Your task to perform on an android device: Open ESPN.com Image 0: 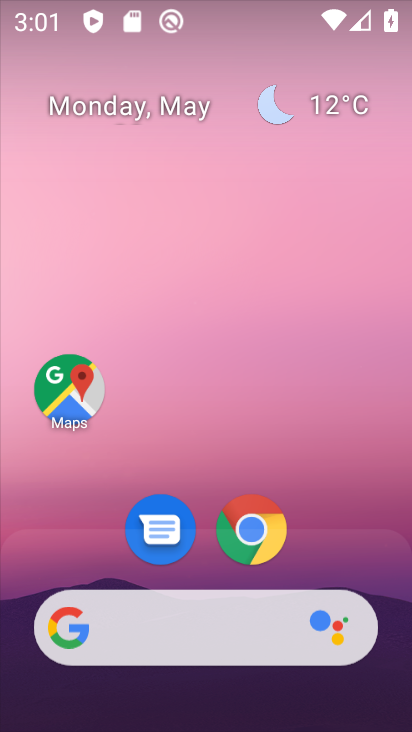
Step 0: drag from (344, 518) to (339, 6)
Your task to perform on an android device: Open ESPN.com Image 1: 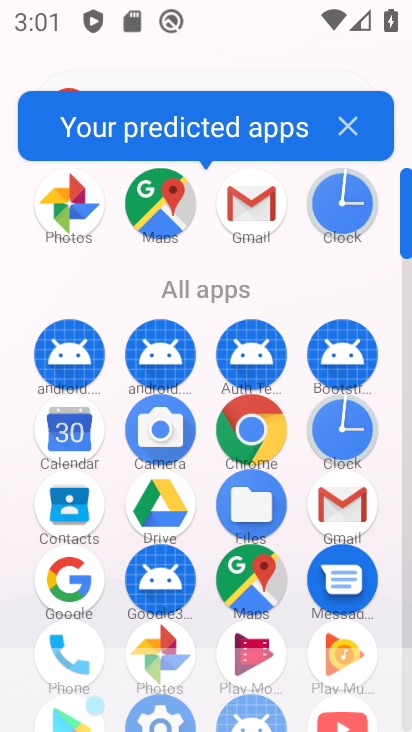
Step 1: click (245, 439)
Your task to perform on an android device: Open ESPN.com Image 2: 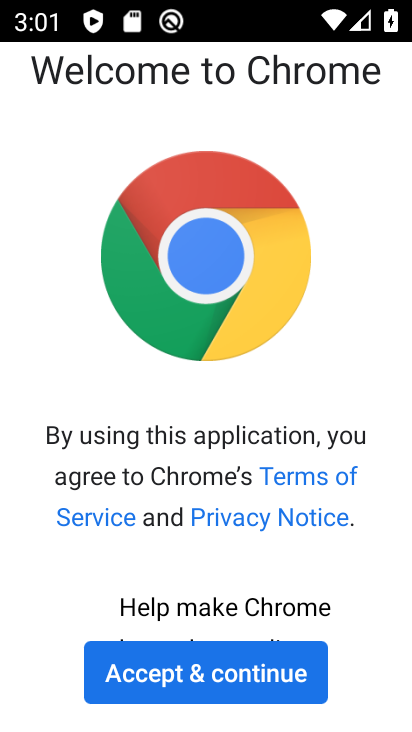
Step 2: click (236, 670)
Your task to perform on an android device: Open ESPN.com Image 3: 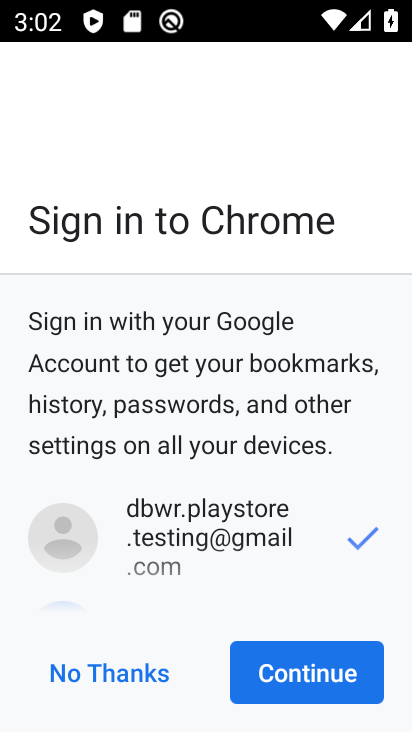
Step 3: click (335, 678)
Your task to perform on an android device: Open ESPN.com Image 4: 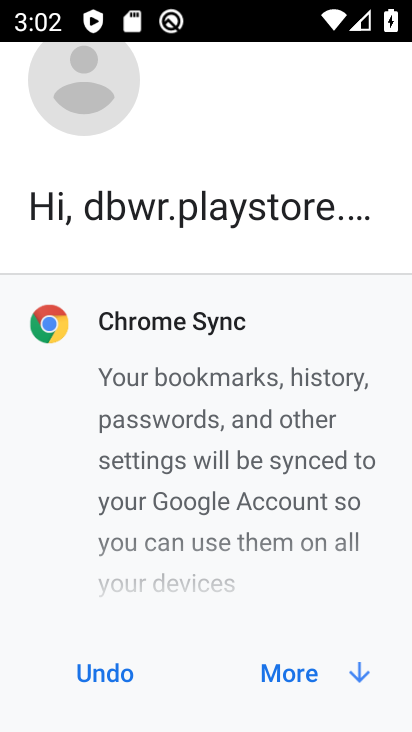
Step 4: click (316, 664)
Your task to perform on an android device: Open ESPN.com Image 5: 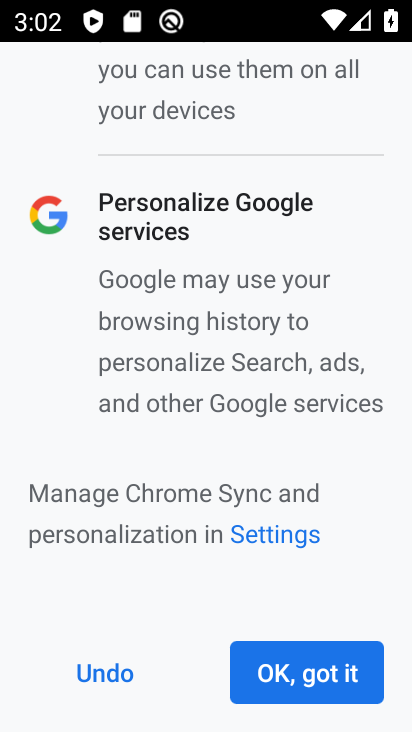
Step 5: click (317, 666)
Your task to perform on an android device: Open ESPN.com Image 6: 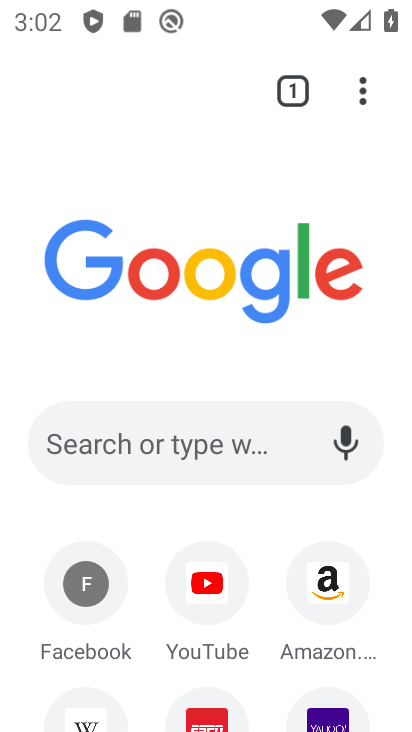
Step 6: drag from (272, 550) to (281, 314)
Your task to perform on an android device: Open ESPN.com Image 7: 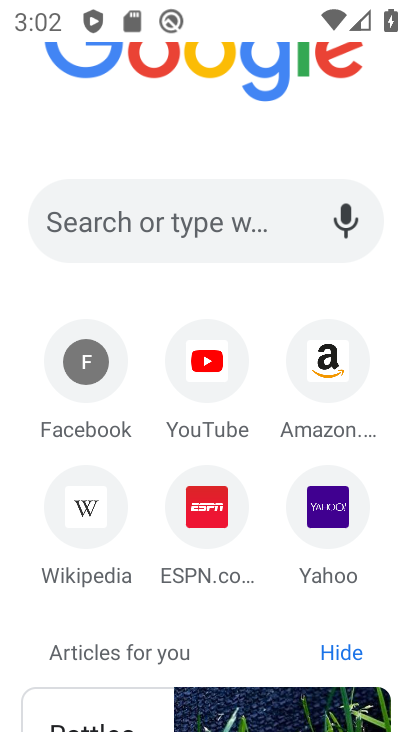
Step 7: click (208, 510)
Your task to perform on an android device: Open ESPN.com Image 8: 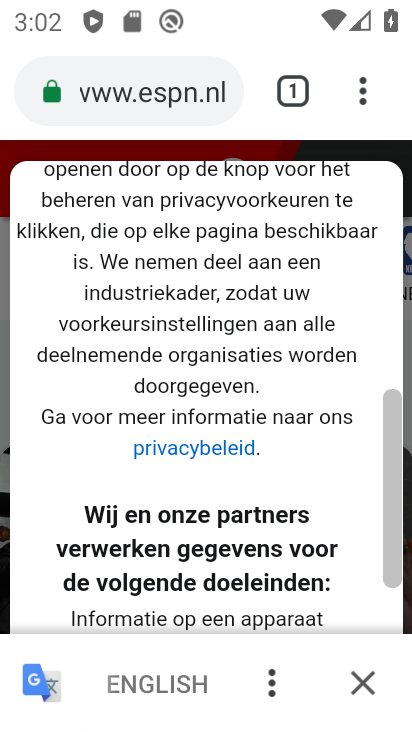
Step 8: task complete